Your task to perform on an android device: What is the recent news? Image 0: 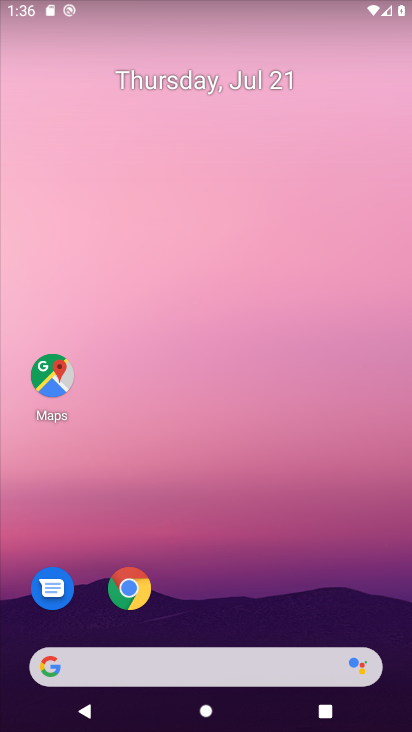
Step 0: drag from (314, 613) to (257, 110)
Your task to perform on an android device: What is the recent news? Image 1: 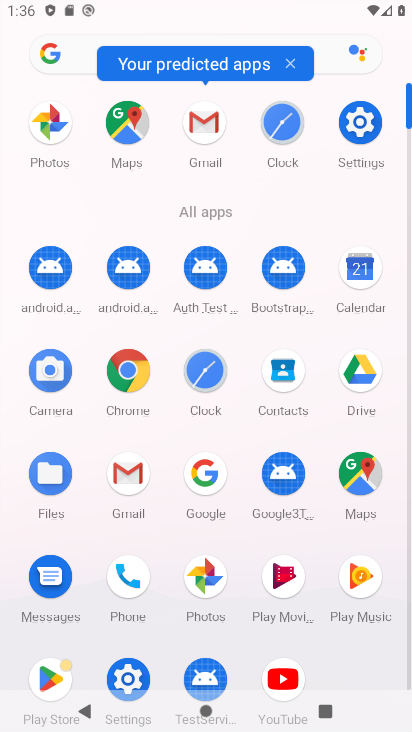
Step 1: click (137, 370)
Your task to perform on an android device: What is the recent news? Image 2: 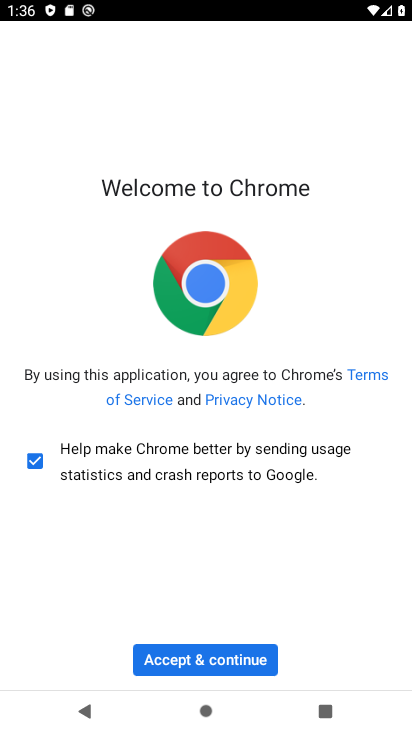
Step 2: click (228, 662)
Your task to perform on an android device: What is the recent news? Image 3: 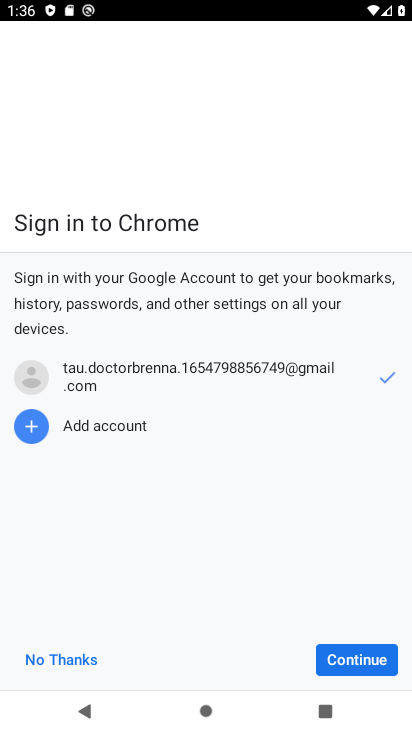
Step 3: click (351, 664)
Your task to perform on an android device: What is the recent news? Image 4: 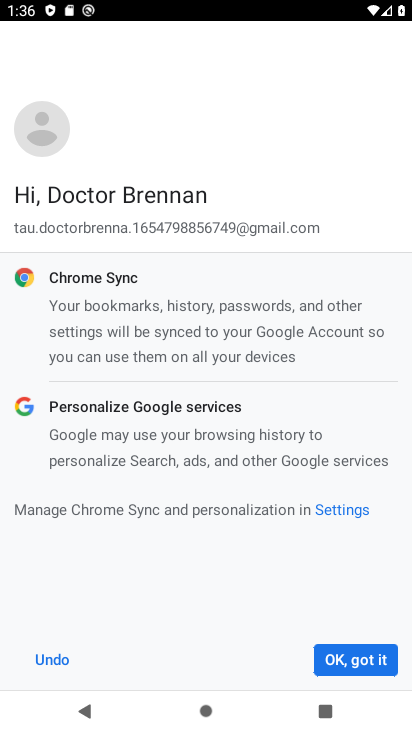
Step 4: click (351, 664)
Your task to perform on an android device: What is the recent news? Image 5: 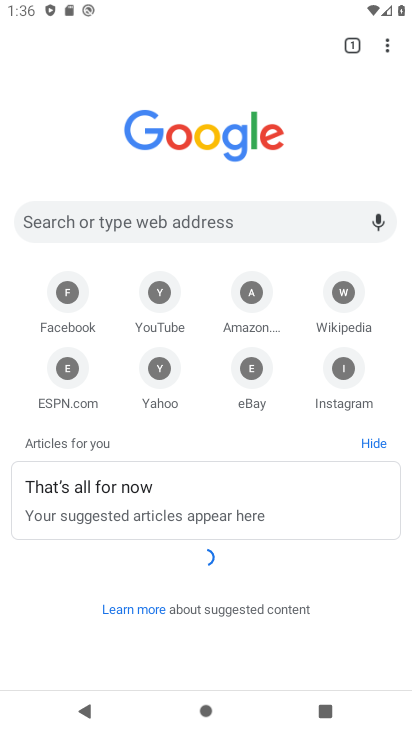
Step 5: click (256, 45)
Your task to perform on an android device: What is the recent news? Image 6: 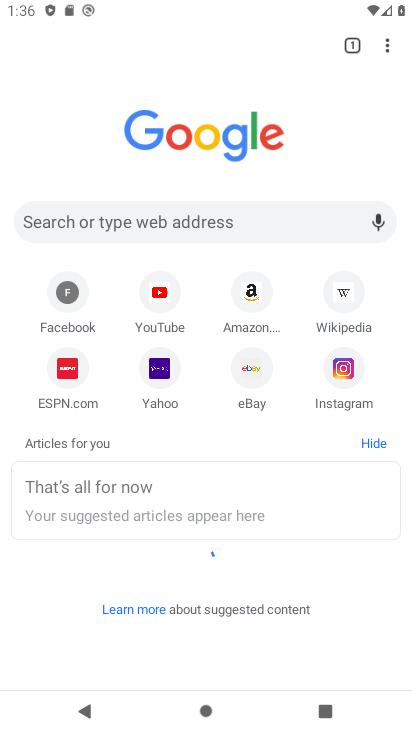
Step 6: click (322, 231)
Your task to perform on an android device: What is the recent news? Image 7: 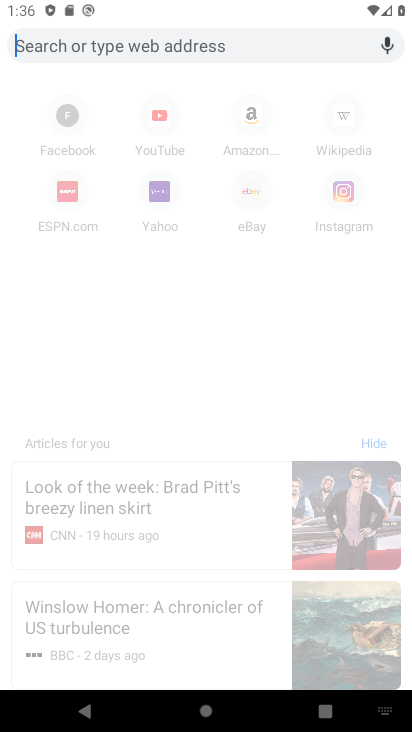
Step 7: type "news"
Your task to perform on an android device: What is the recent news? Image 8: 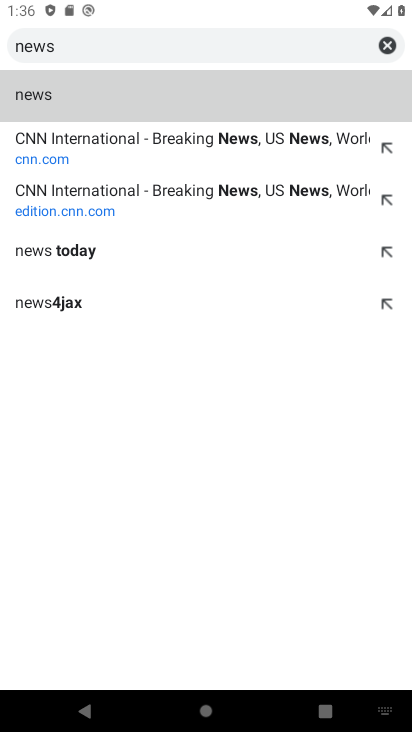
Step 8: click (35, 88)
Your task to perform on an android device: What is the recent news? Image 9: 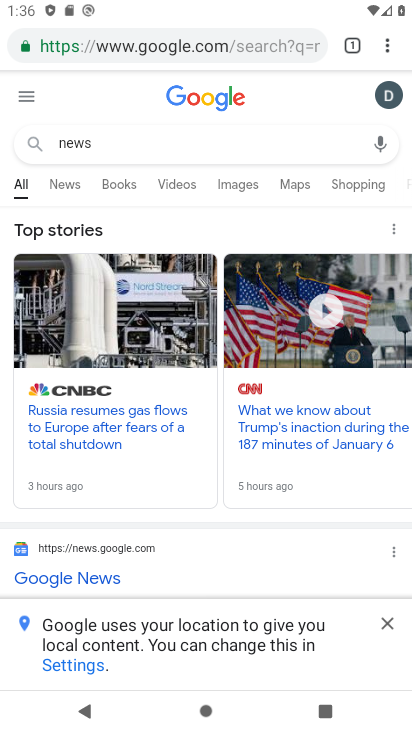
Step 9: click (52, 575)
Your task to perform on an android device: What is the recent news? Image 10: 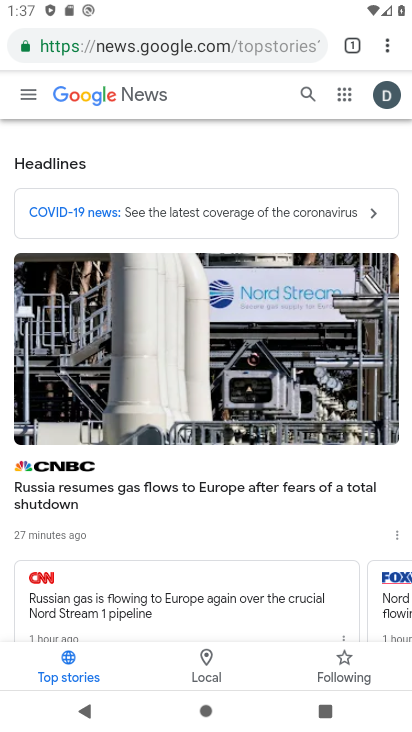
Step 10: task complete